Your task to perform on an android device: What's the weather? Image 0: 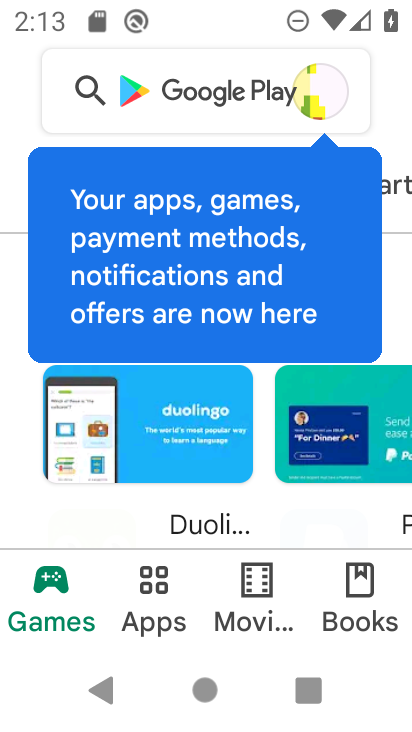
Step 0: press home button
Your task to perform on an android device: What's the weather? Image 1: 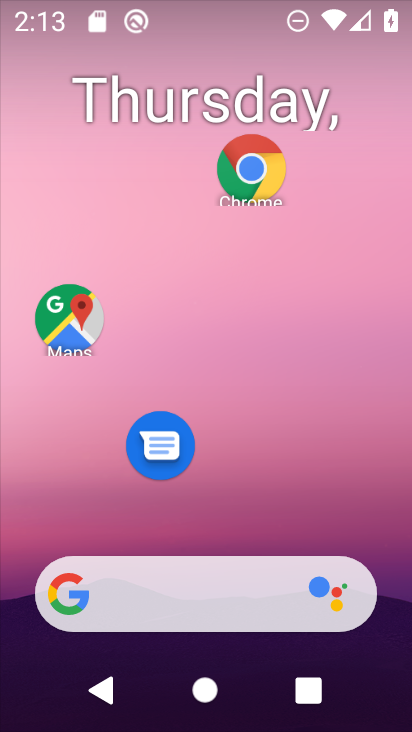
Step 1: drag from (242, 624) to (214, 209)
Your task to perform on an android device: What's the weather? Image 2: 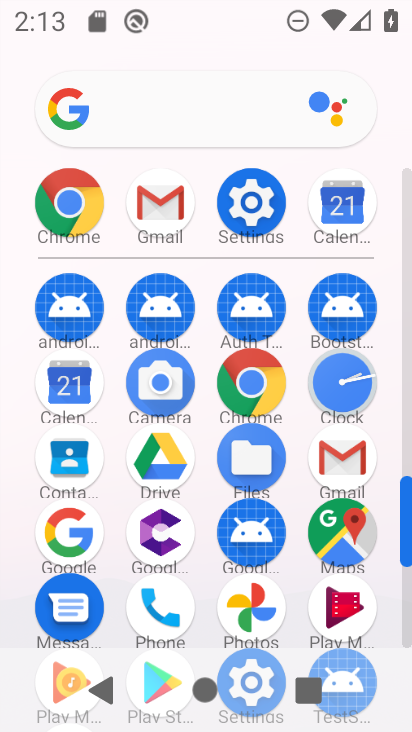
Step 2: click (191, 129)
Your task to perform on an android device: What's the weather? Image 3: 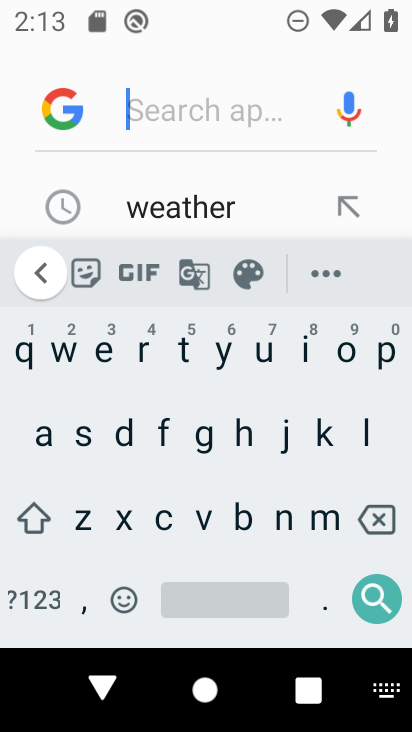
Step 3: click (169, 188)
Your task to perform on an android device: What's the weather? Image 4: 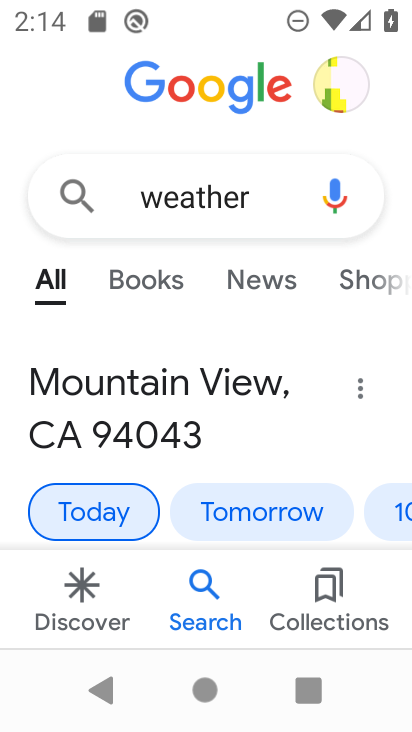
Step 4: click (251, 285)
Your task to perform on an android device: What's the weather? Image 5: 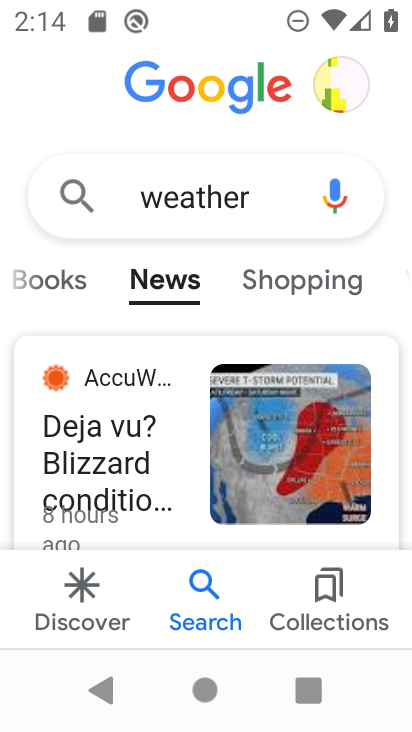
Step 5: task complete